Your task to perform on an android device: turn pop-ups on in chrome Image 0: 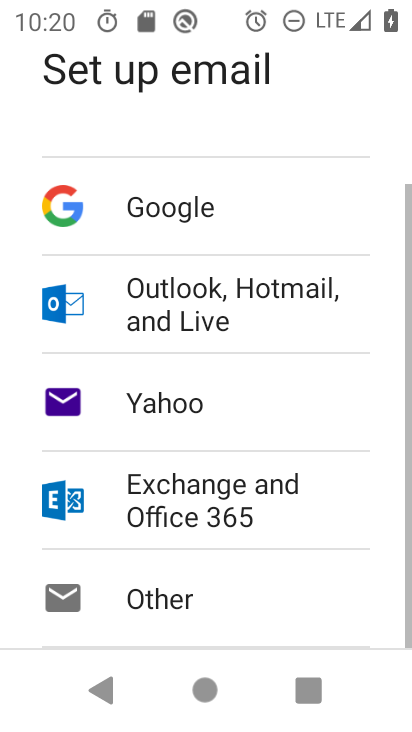
Step 0: press home button
Your task to perform on an android device: turn pop-ups on in chrome Image 1: 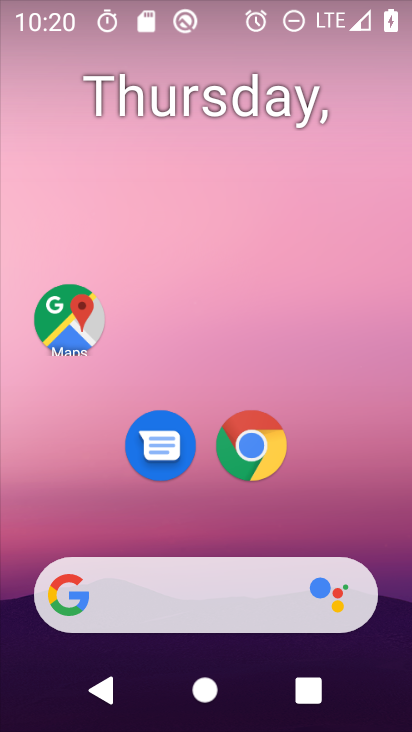
Step 1: drag from (175, 532) to (204, 118)
Your task to perform on an android device: turn pop-ups on in chrome Image 2: 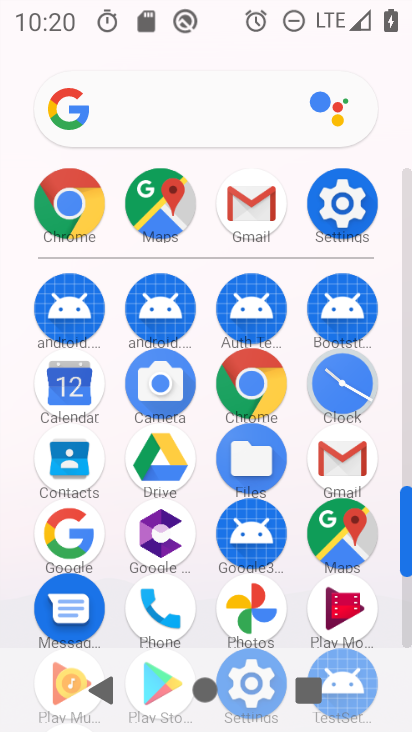
Step 2: click (248, 385)
Your task to perform on an android device: turn pop-ups on in chrome Image 3: 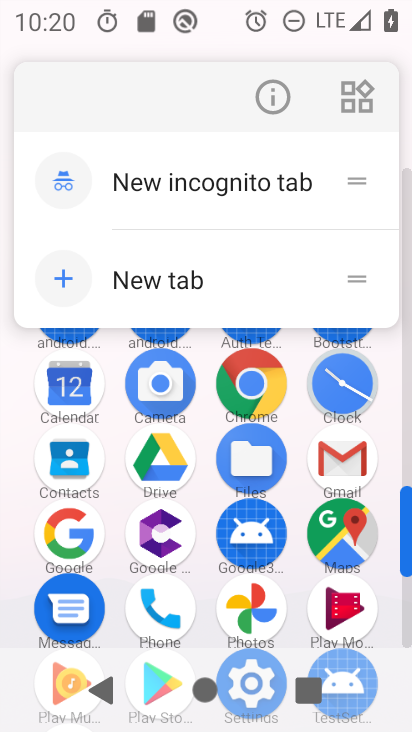
Step 3: click (287, 99)
Your task to perform on an android device: turn pop-ups on in chrome Image 4: 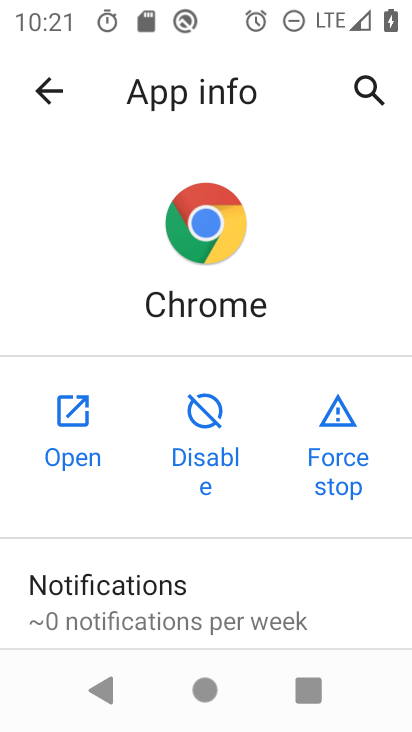
Step 4: click (98, 415)
Your task to perform on an android device: turn pop-ups on in chrome Image 5: 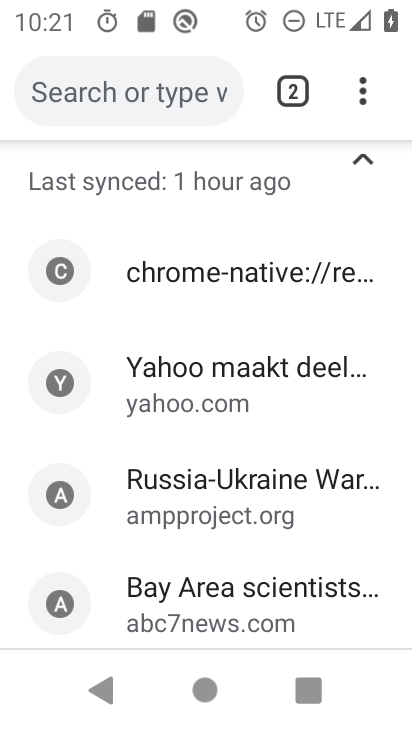
Step 5: drag from (367, 87) to (181, 481)
Your task to perform on an android device: turn pop-ups on in chrome Image 6: 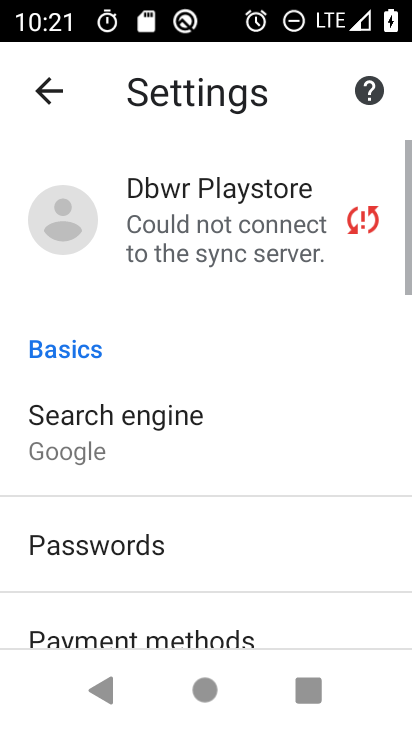
Step 6: drag from (202, 513) to (306, 100)
Your task to perform on an android device: turn pop-ups on in chrome Image 7: 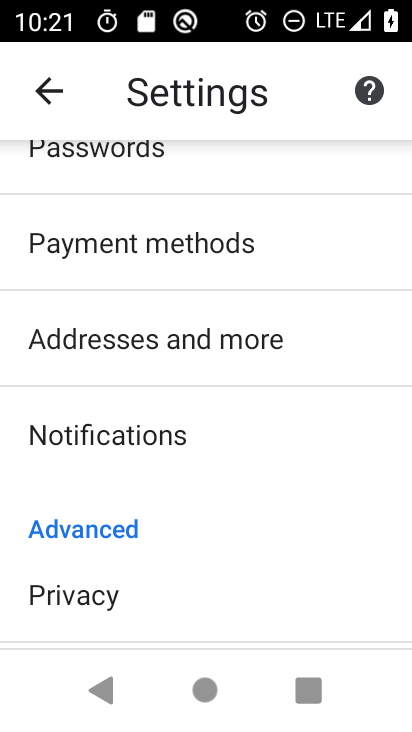
Step 7: drag from (200, 457) to (318, 156)
Your task to perform on an android device: turn pop-ups on in chrome Image 8: 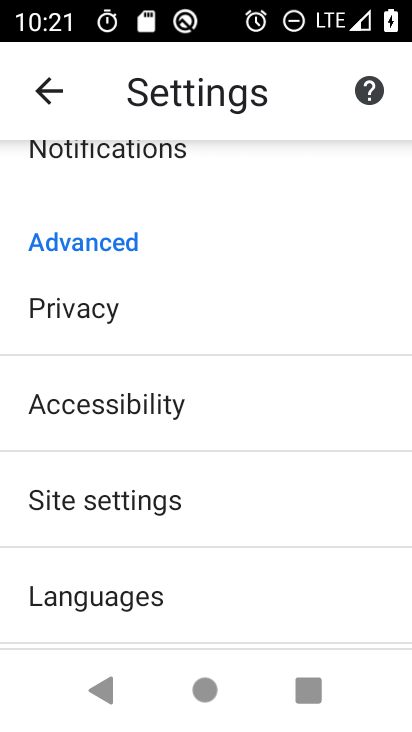
Step 8: click (164, 484)
Your task to perform on an android device: turn pop-ups on in chrome Image 9: 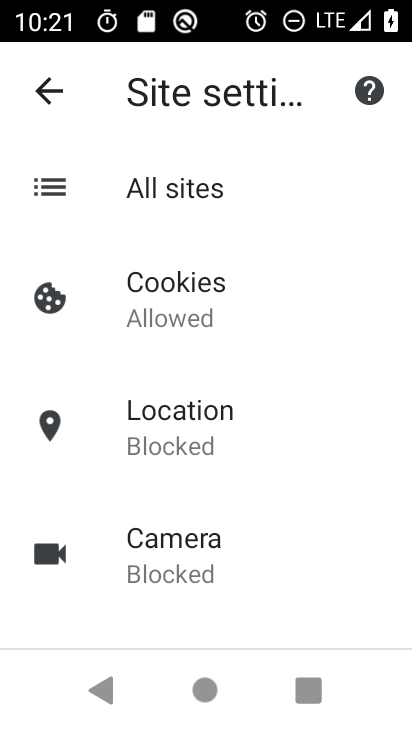
Step 9: drag from (251, 517) to (349, 191)
Your task to perform on an android device: turn pop-ups on in chrome Image 10: 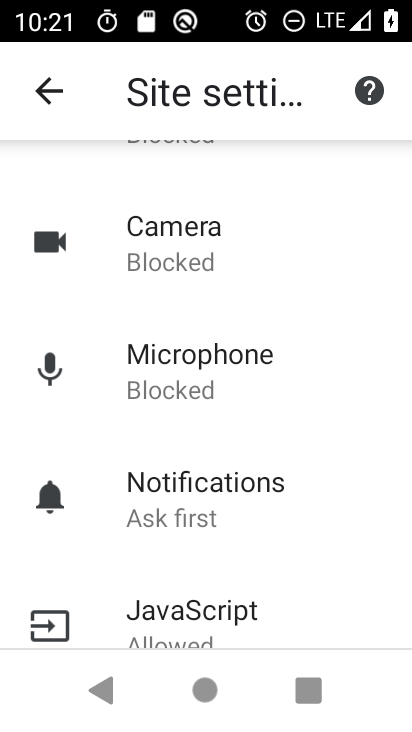
Step 10: drag from (206, 579) to (231, 80)
Your task to perform on an android device: turn pop-ups on in chrome Image 11: 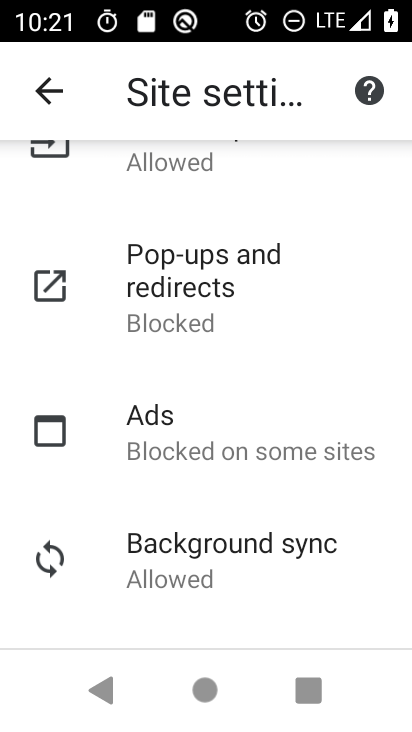
Step 11: click (222, 288)
Your task to perform on an android device: turn pop-ups on in chrome Image 12: 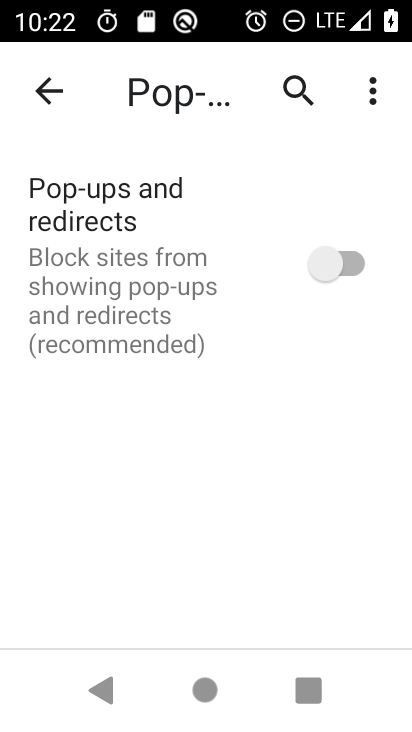
Step 12: click (313, 285)
Your task to perform on an android device: turn pop-ups on in chrome Image 13: 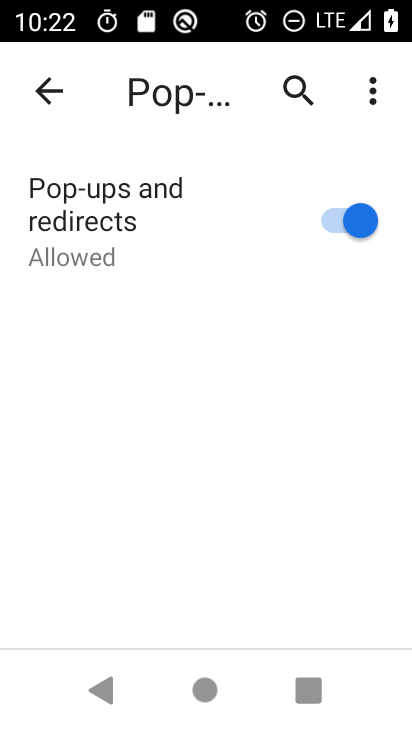
Step 13: task complete